Your task to perform on an android device: Open location settings Image 0: 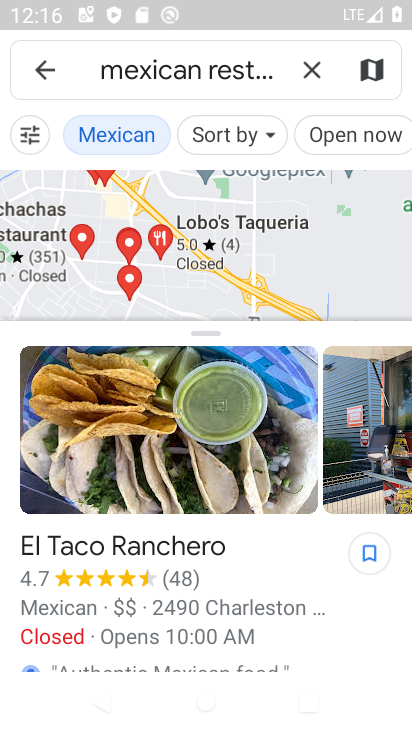
Step 0: press home button
Your task to perform on an android device: Open location settings Image 1: 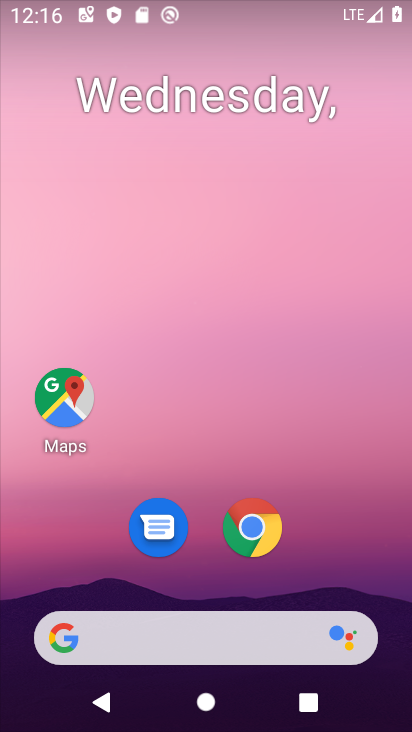
Step 1: drag from (313, 619) to (388, 9)
Your task to perform on an android device: Open location settings Image 2: 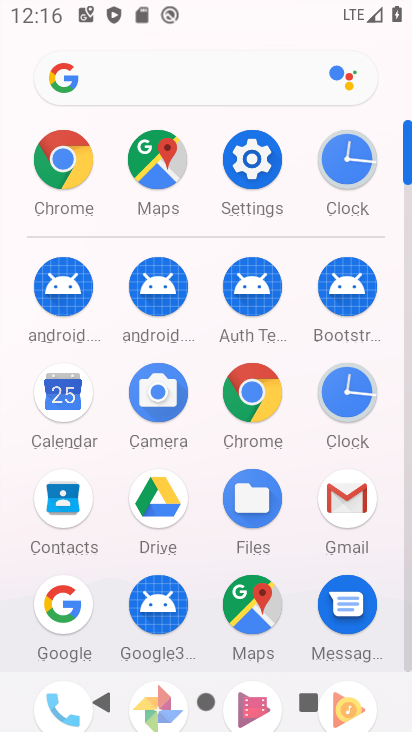
Step 2: click (240, 176)
Your task to perform on an android device: Open location settings Image 3: 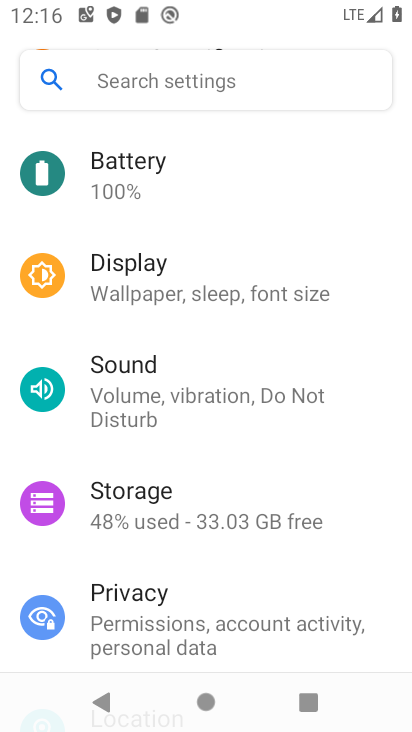
Step 3: drag from (214, 620) to (259, 173)
Your task to perform on an android device: Open location settings Image 4: 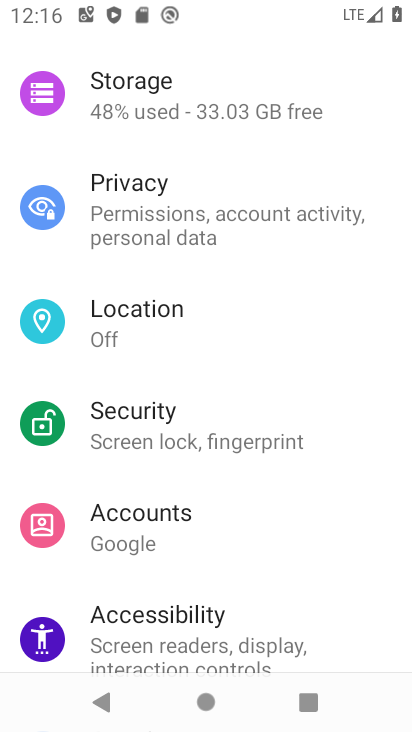
Step 4: click (210, 328)
Your task to perform on an android device: Open location settings Image 5: 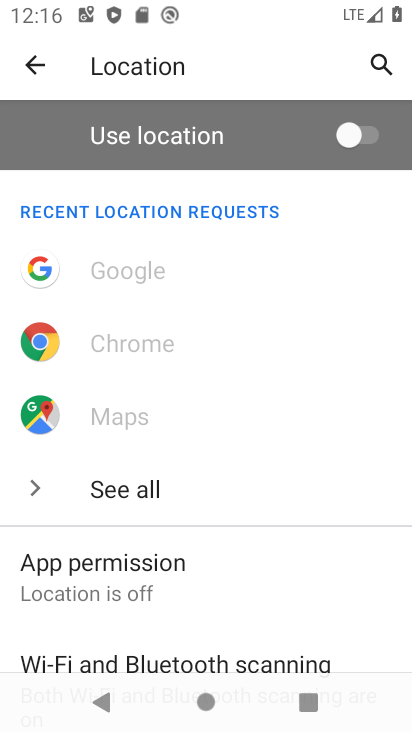
Step 5: task complete